Your task to perform on an android device: turn on improve location accuracy Image 0: 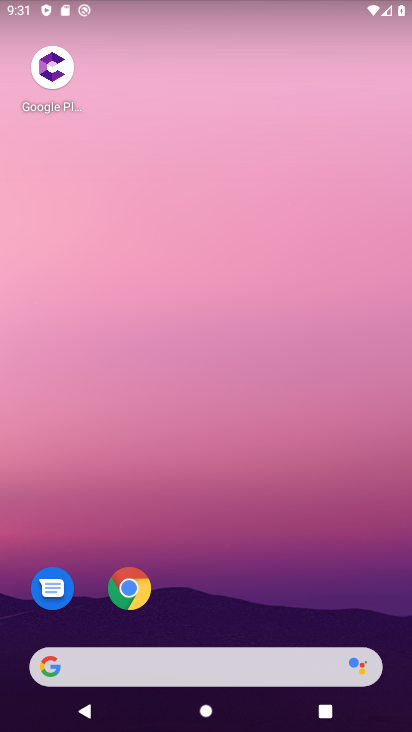
Step 0: drag from (196, 642) to (232, 1)
Your task to perform on an android device: turn on improve location accuracy Image 1: 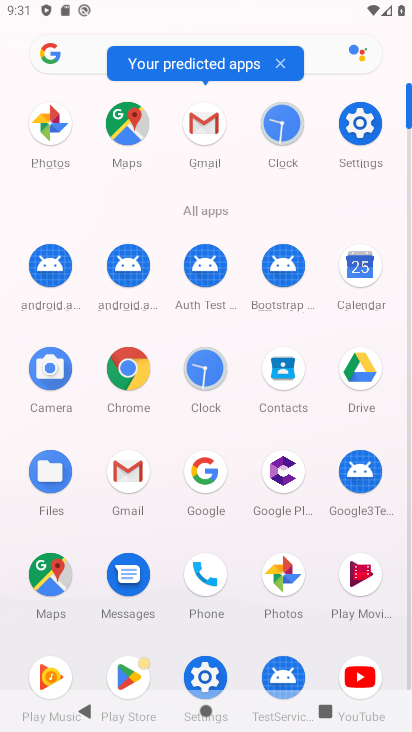
Step 1: click (346, 115)
Your task to perform on an android device: turn on improve location accuracy Image 2: 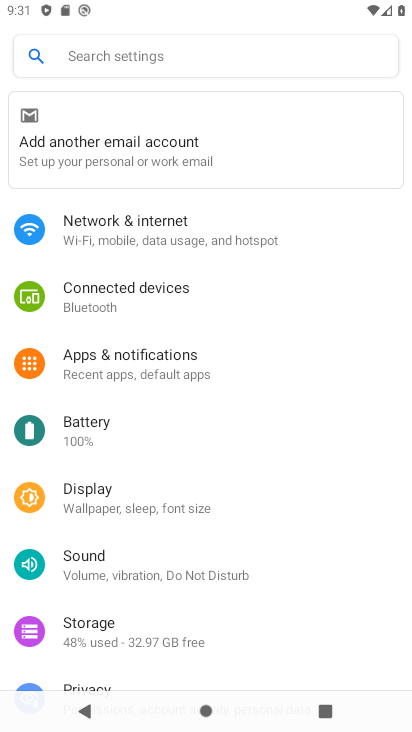
Step 2: drag from (83, 628) to (70, 124)
Your task to perform on an android device: turn on improve location accuracy Image 3: 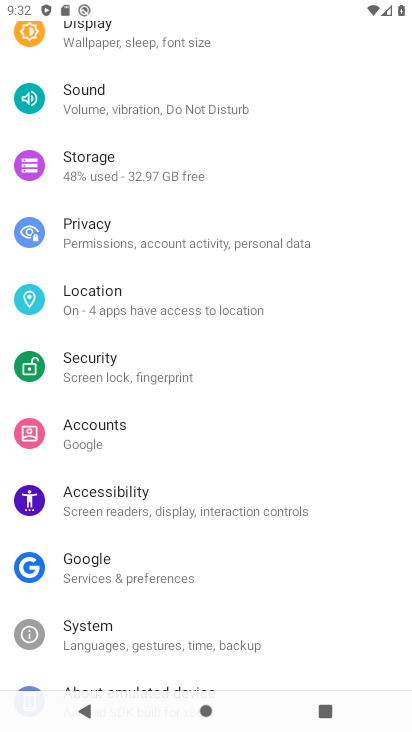
Step 3: click (31, 307)
Your task to perform on an android device: turn on improve location accuracy Image 4: 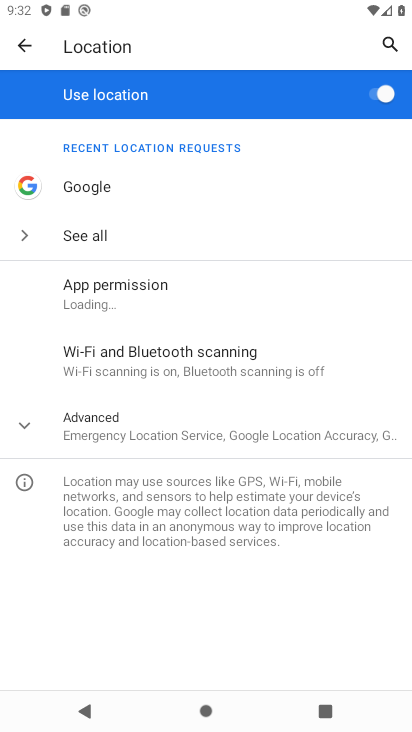
Step 4: click (117, 420)
Your task to perform on an android device: turn on improve location accuracy Image 5: 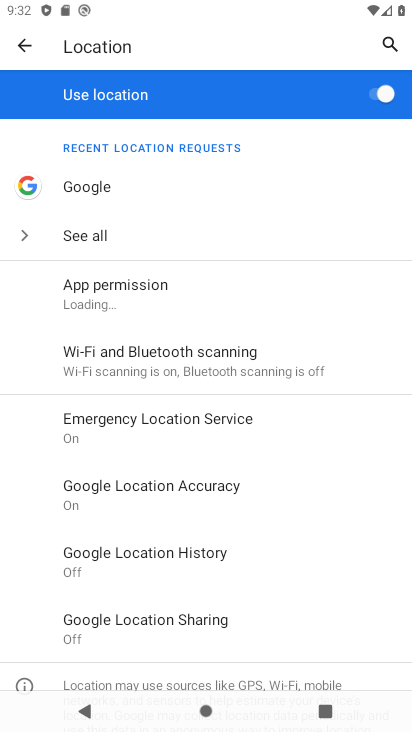
Step 5: click (187, 490)
Your task to perform on an android device: turn on improve location accuracy Image 6: 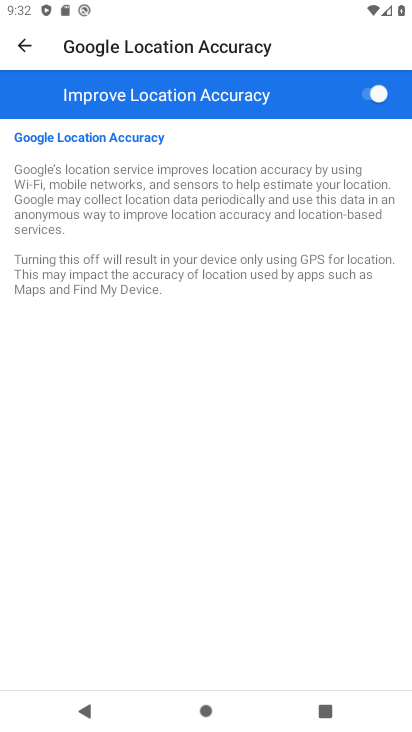
Step 6: task complete